Your task to perform on an android device: Search for the best rated desk chair on Article.com Image 0: 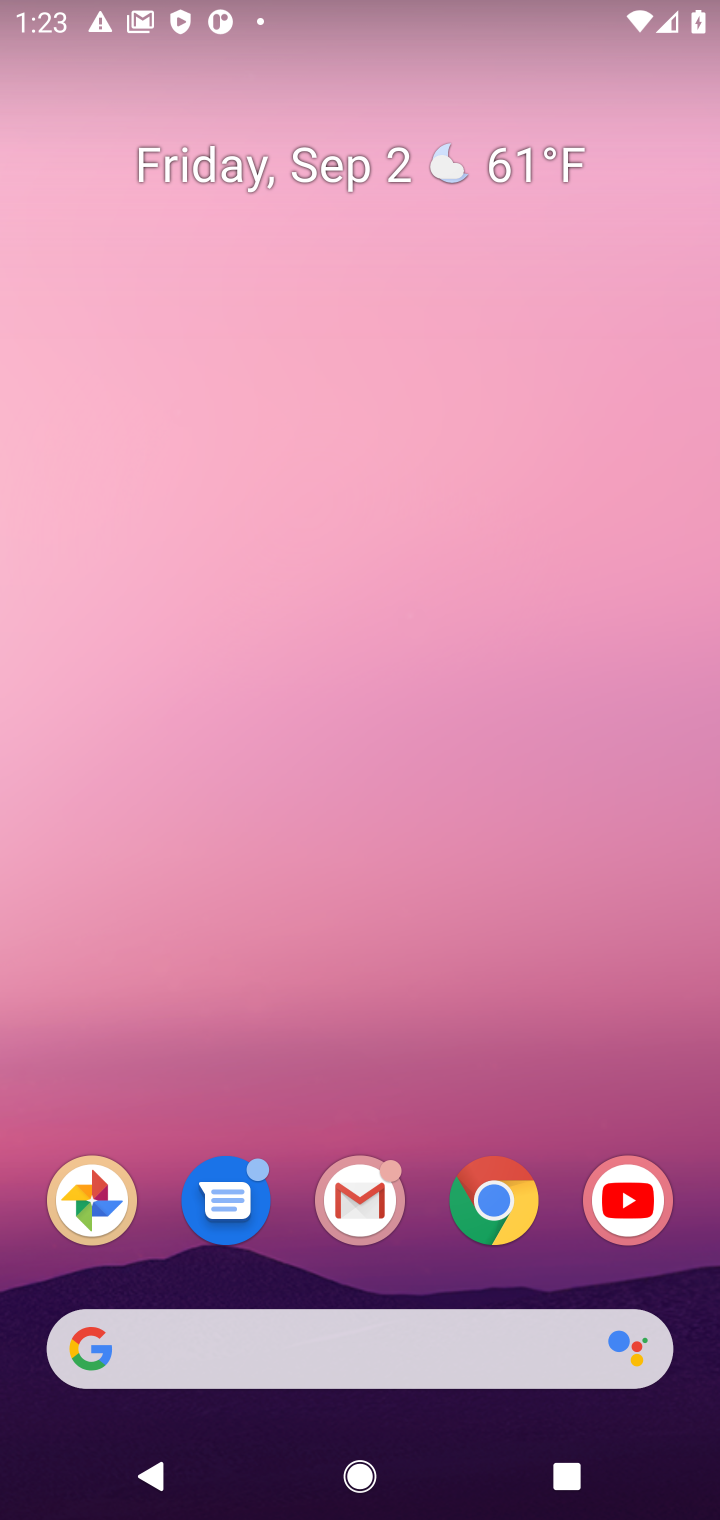
Step 0: click (682, 991)
Your task to perform on an android device: Search for the best rated desk chair on Article.com Image 1: 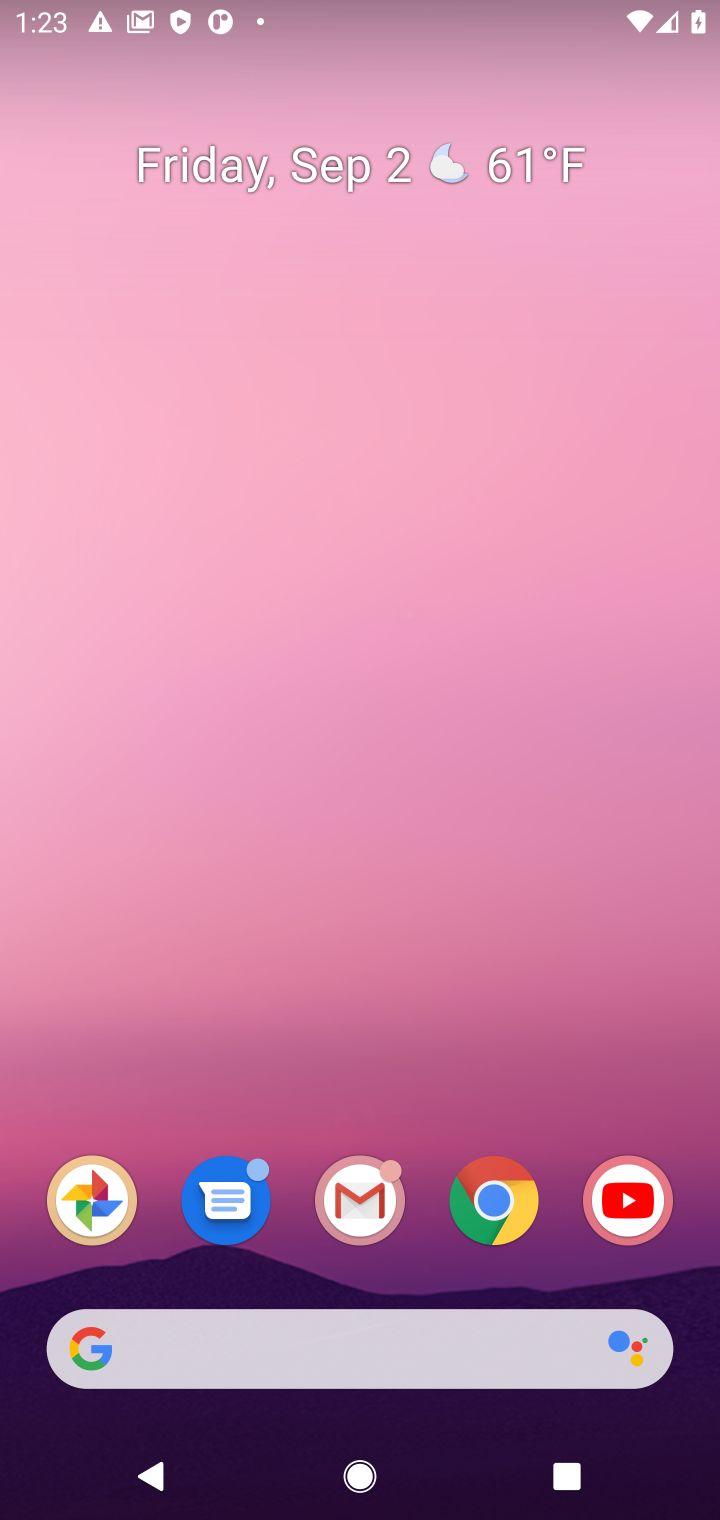
Step 1: click (496, 1209)
Your task to perform on an android device: Search for the best rated desk chair on Article.com Image 2: 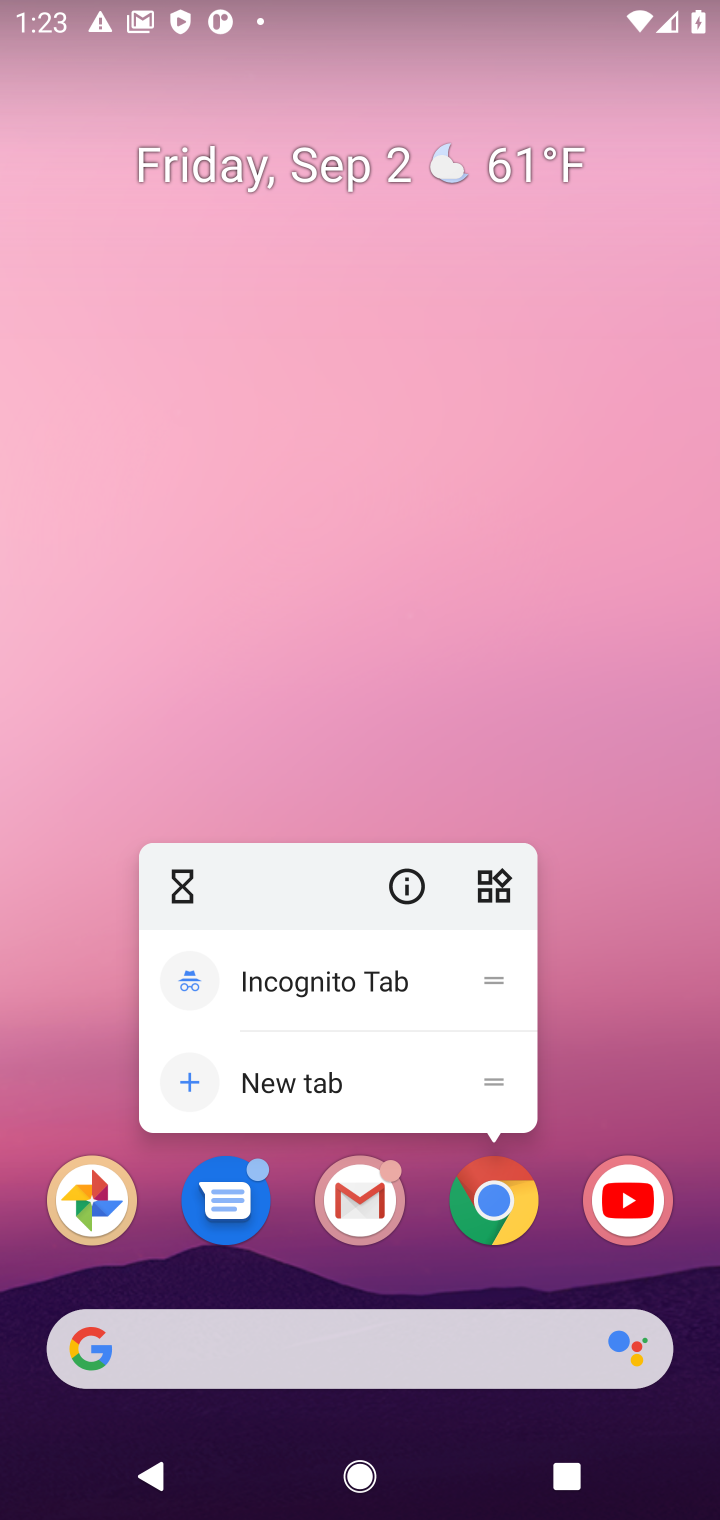
Step 2: click (496, 1205)
Your task to perform on an android device: Search for the best rated desk chair on Article.com Image 3: 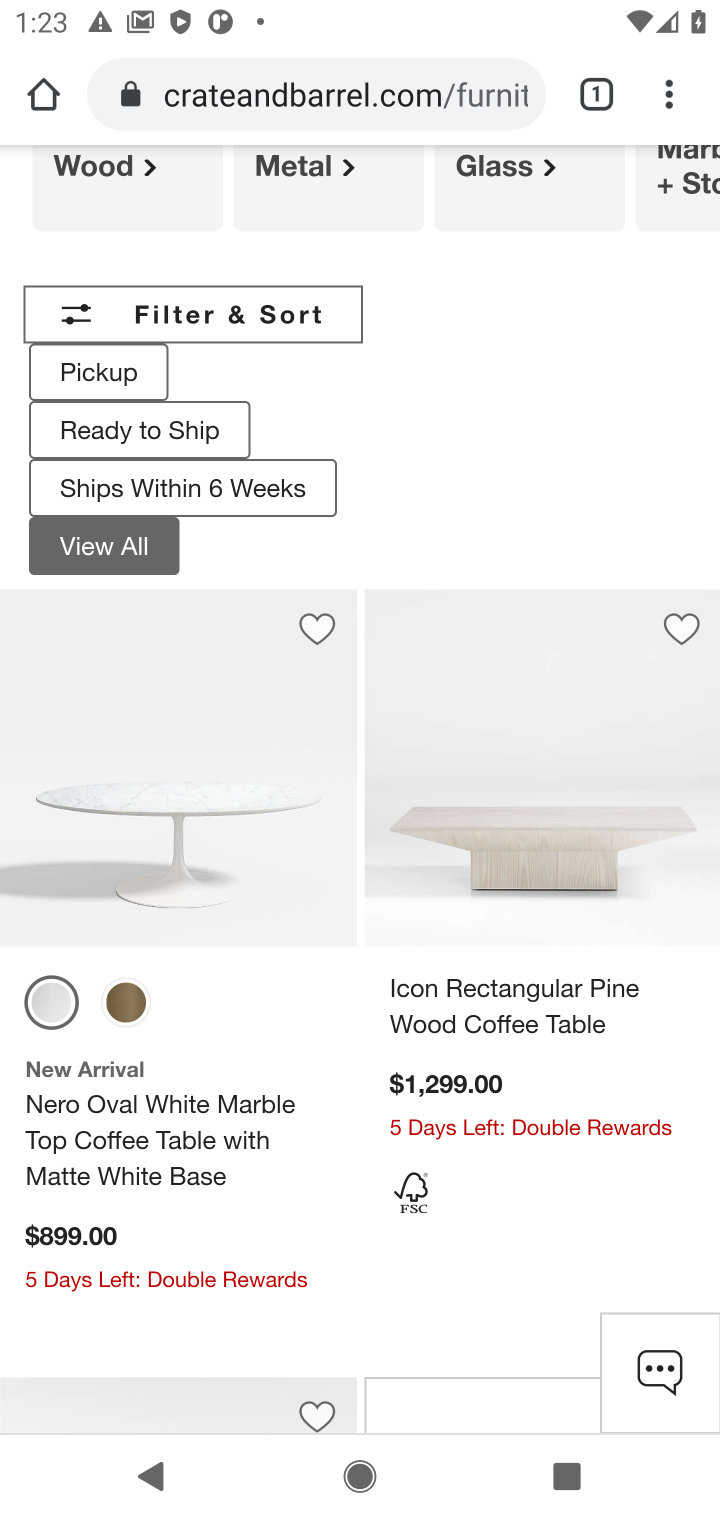
Step 3: click (408, 94)
Your task to perform on an android device: Search for the best rated desk chair on Article.com Image 4: 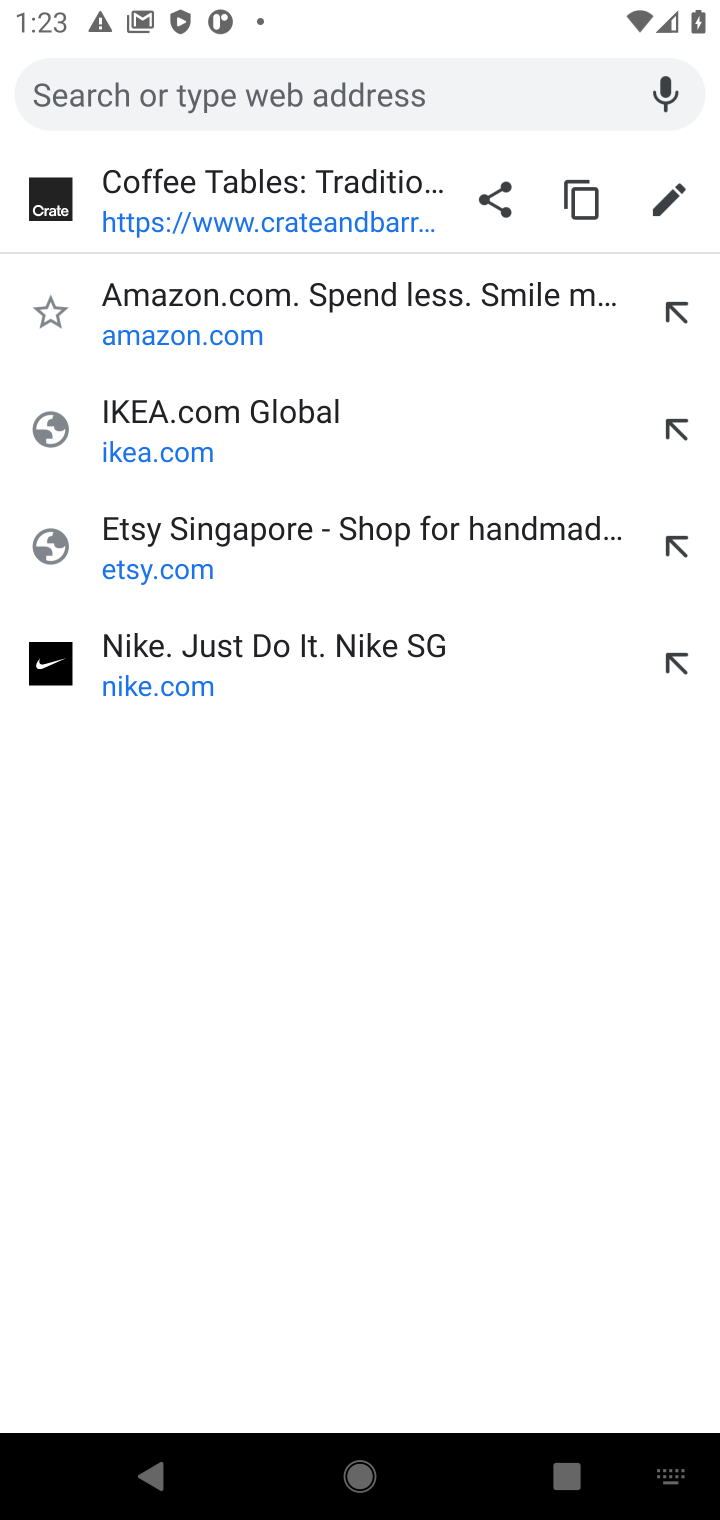
Step 4: type "Article.com"
Your task to perform on an android device: Search for the best rated desk chair on Article.com Image 5: 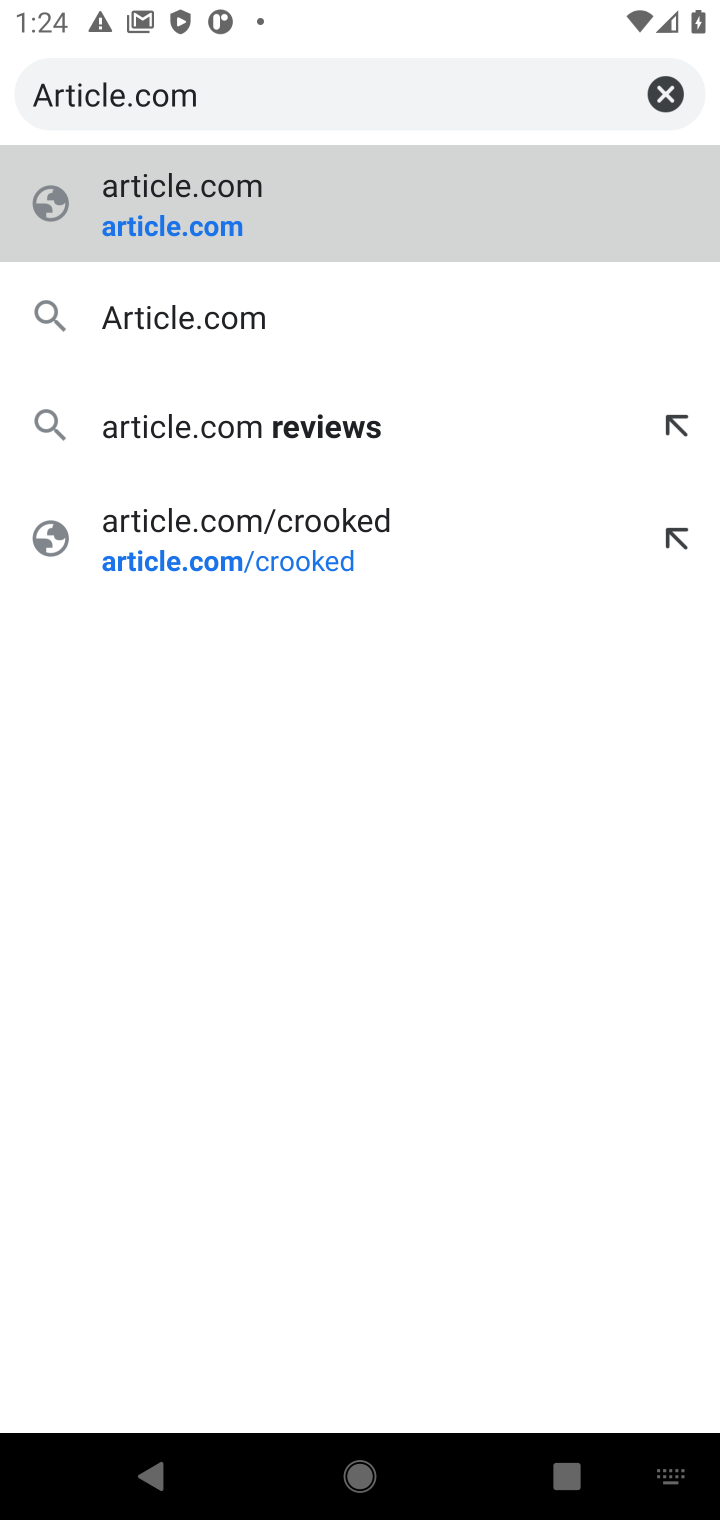
Step 5: press enter
Your task to perform on an android device: Search for the best rated desk chair on Article.com Image 6: 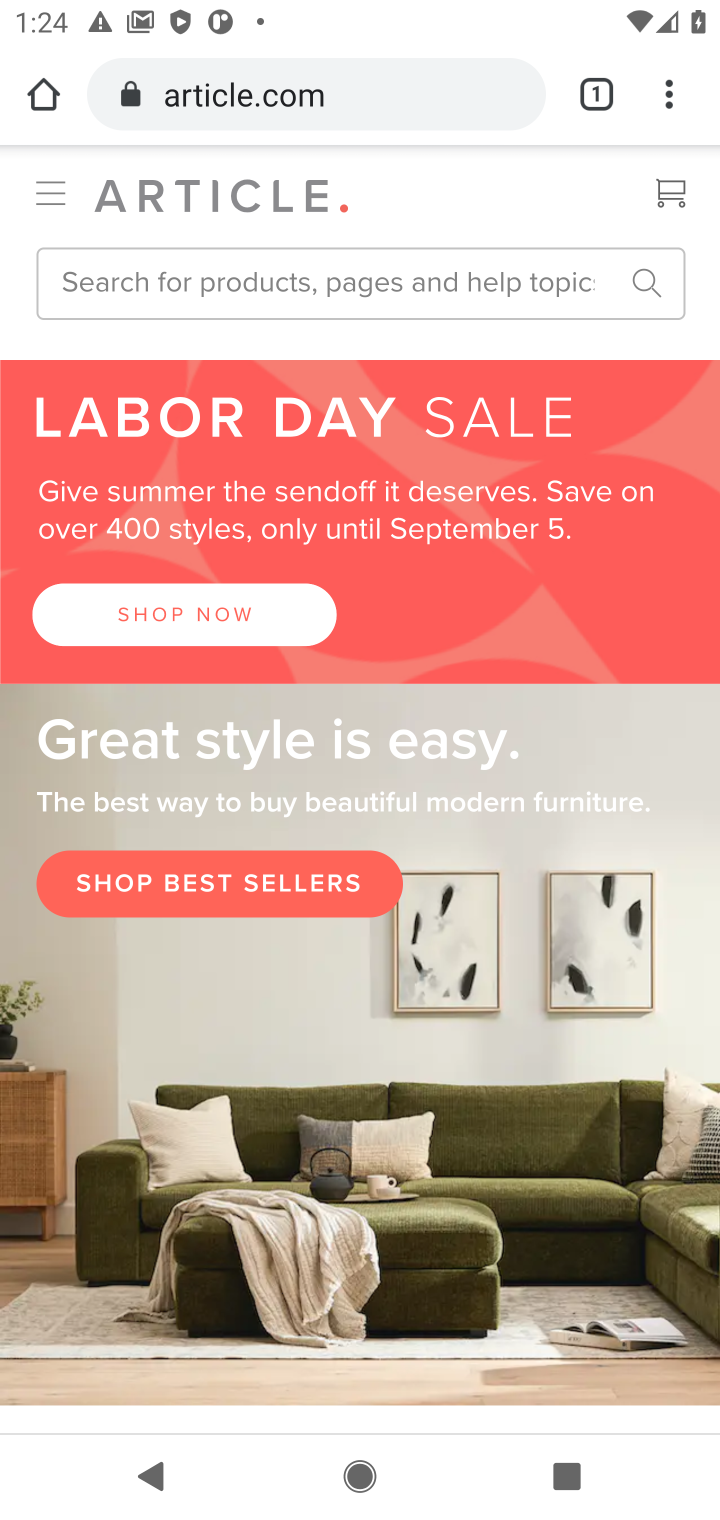
Step 6: click (447, 285)
Your task to perform on an android device: Search for the best rated desk chair on Article.com Image 7: 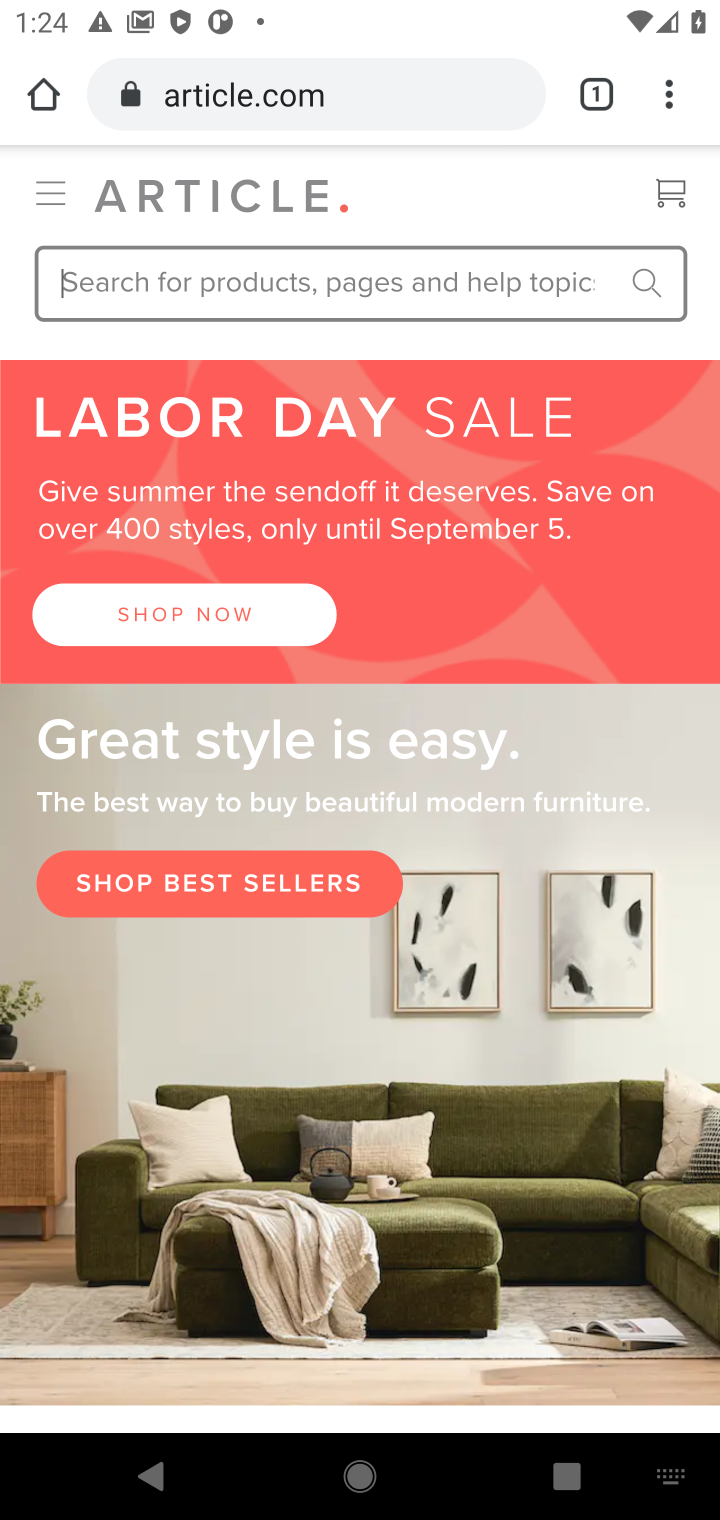
Step 7: press enter
Your task to perform on an android device: Search for the best rated desk chair on Article.com Image 8: 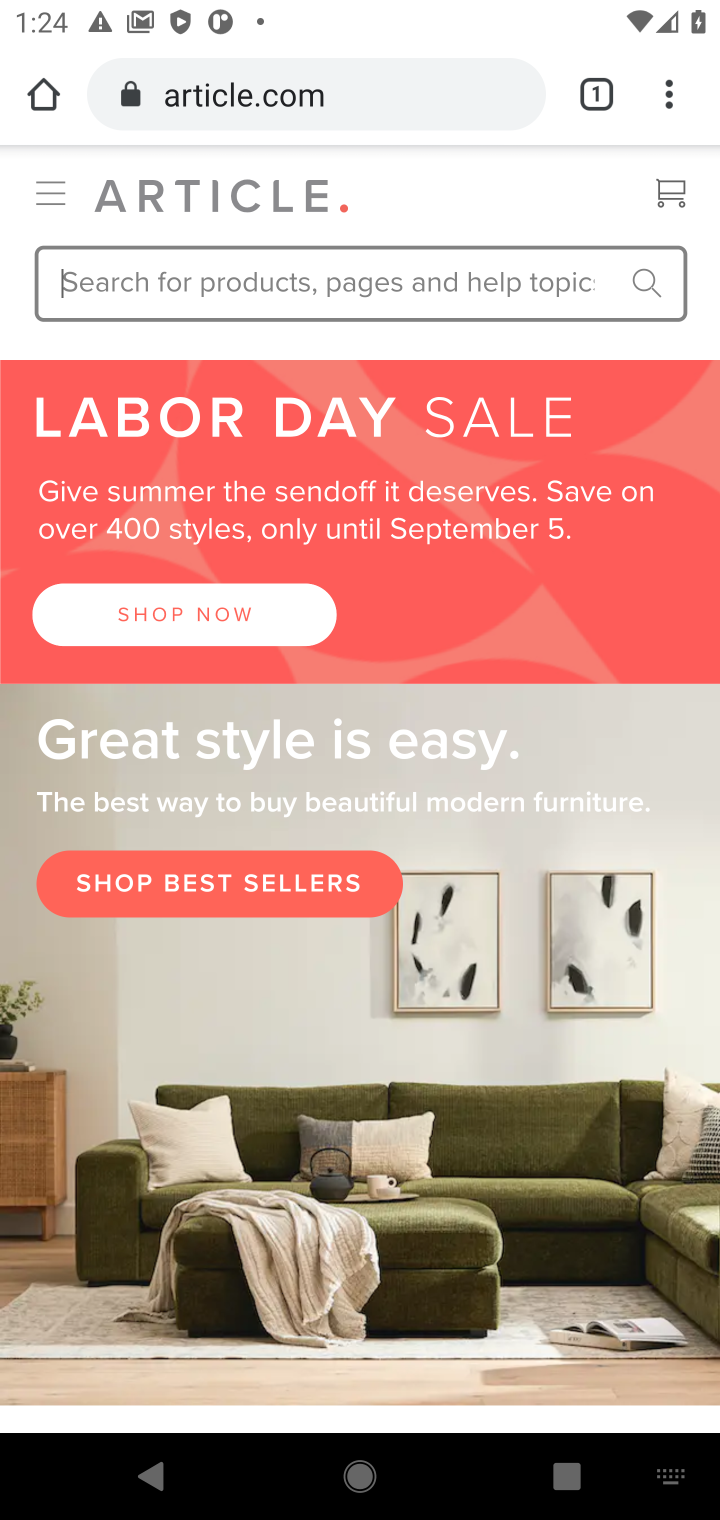
Step 8: type "desk chair "
Your task to perform on an android device: Search for the best rated desk chair on Article.com Image 9: 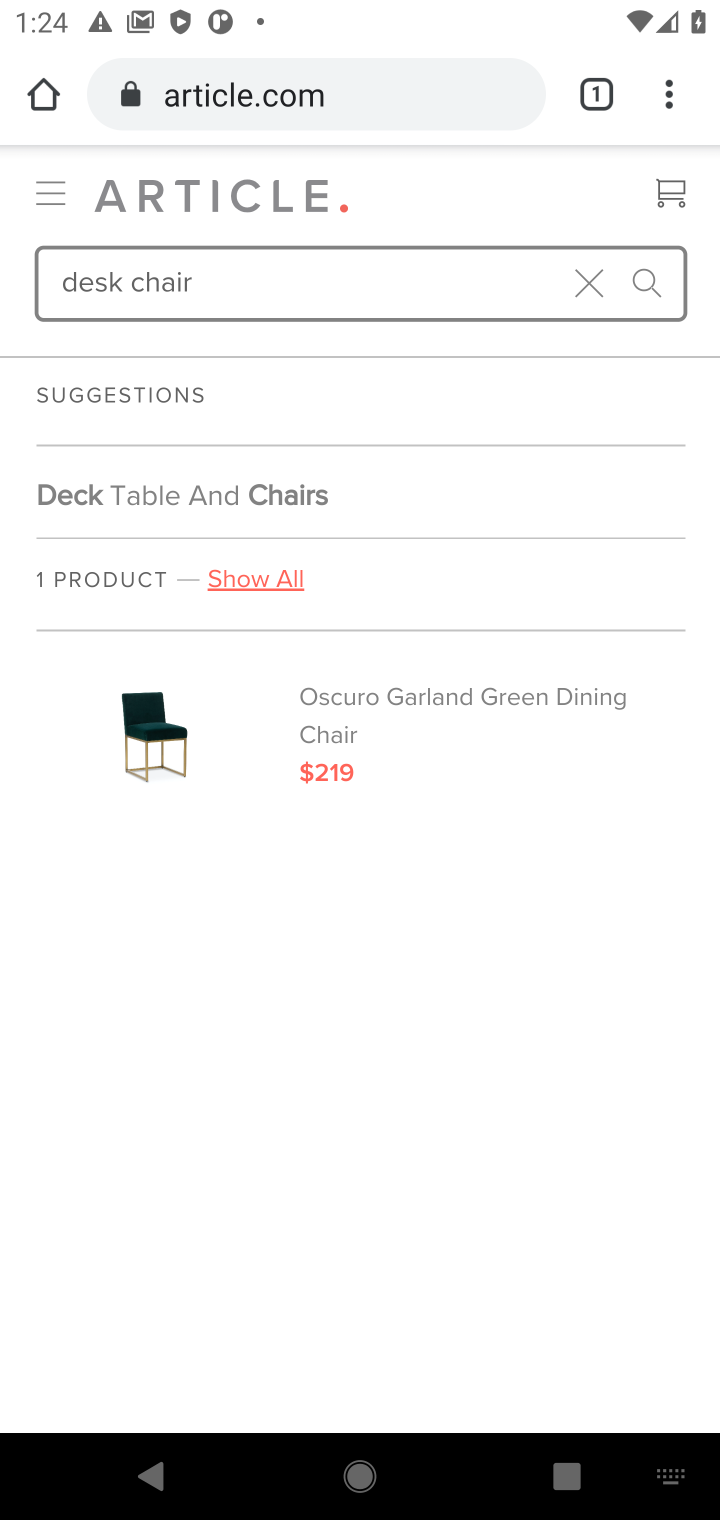
Step 9: click (640, 275)
Your task to perform on an android device: Search for the best rated desk chair on Article.com Image 10: 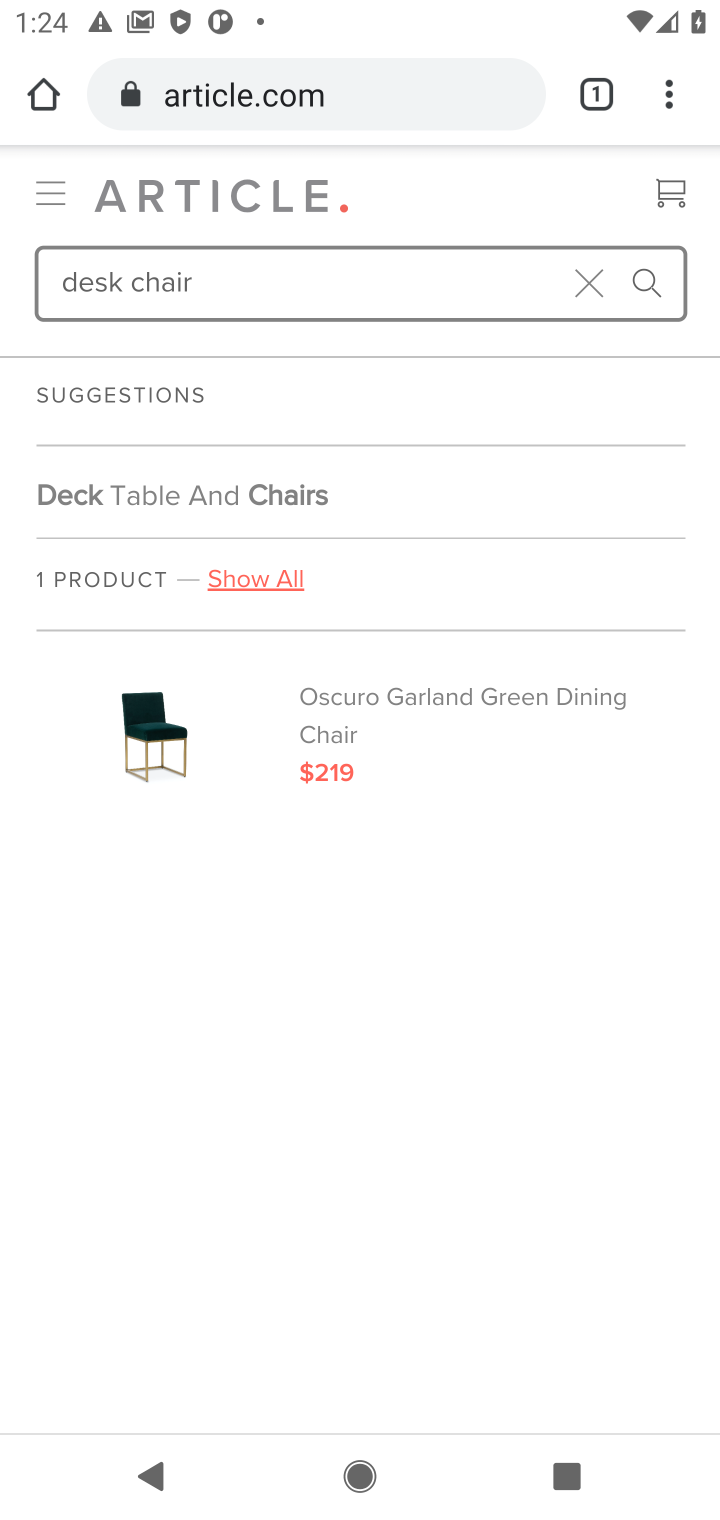
Step 10: task complete